Your task to perform on an android device: Open network settings Image 0: 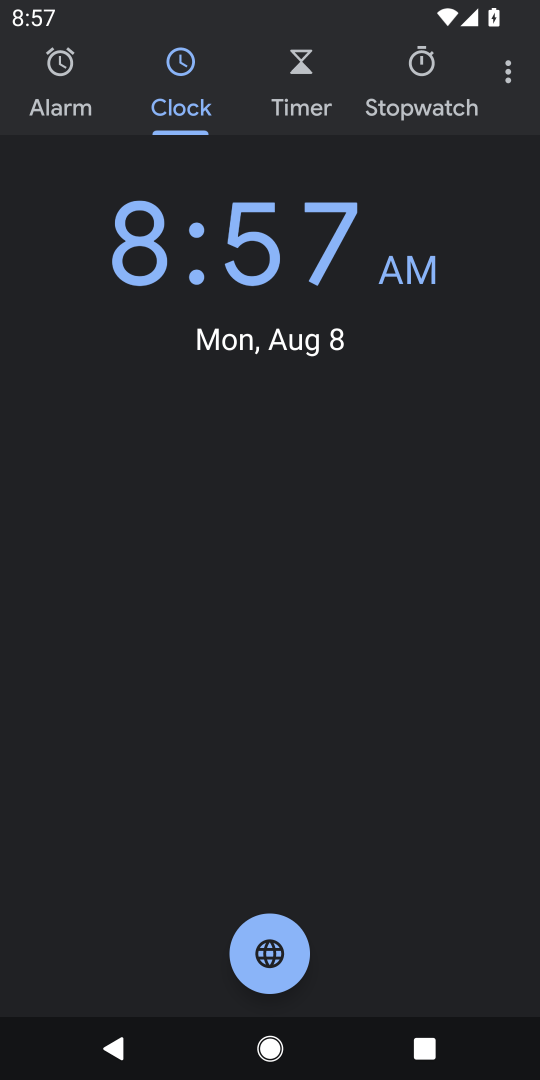
Step 0: press home button
Your task to perform on an android device: Open network settings Image 1: 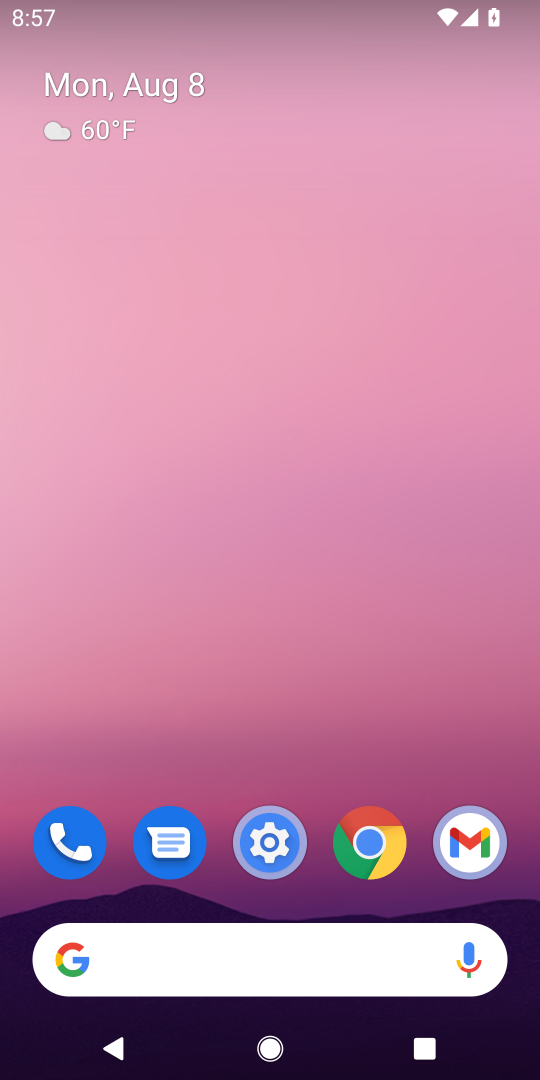
Step 1: click (261, 851)
Your task to perform on an android device: Open network settings Image 2: 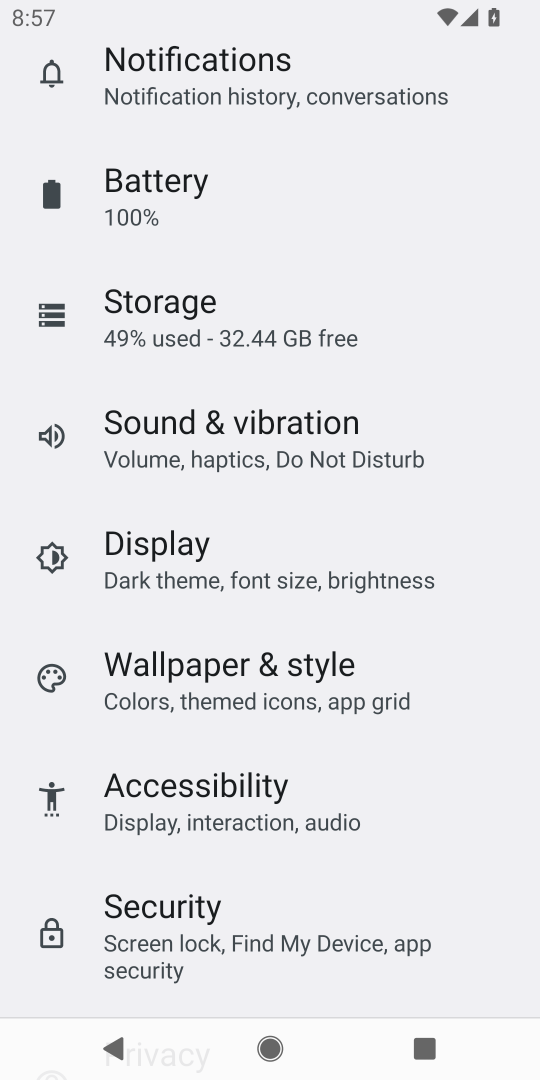
Step 2: drag from (298, 135) to (405, 783)
Your task to perform on an android device: Open network settings Image 3: 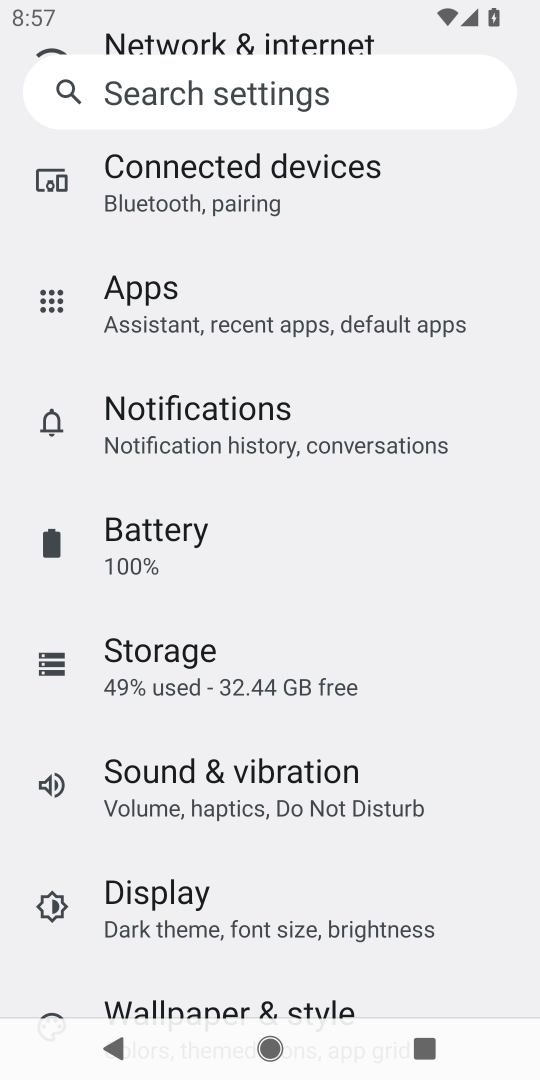
Step 3: drag from (303, 175) to (347, 589)
Your task to perform on an android device: Open network settings Image 4: 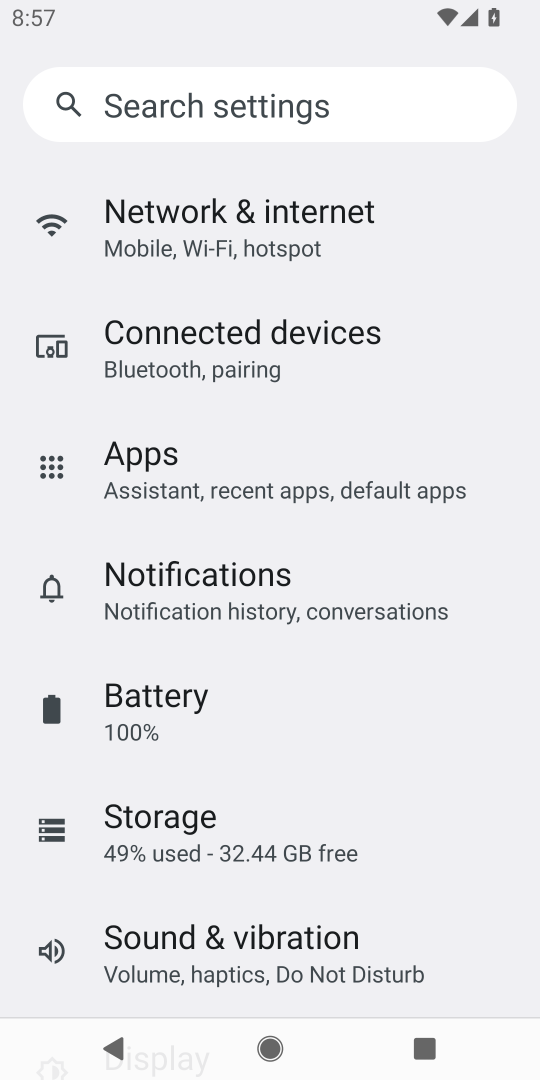
Step 4: click (242, 217)
Your task to perform on an android device: Open network settings Image 5: 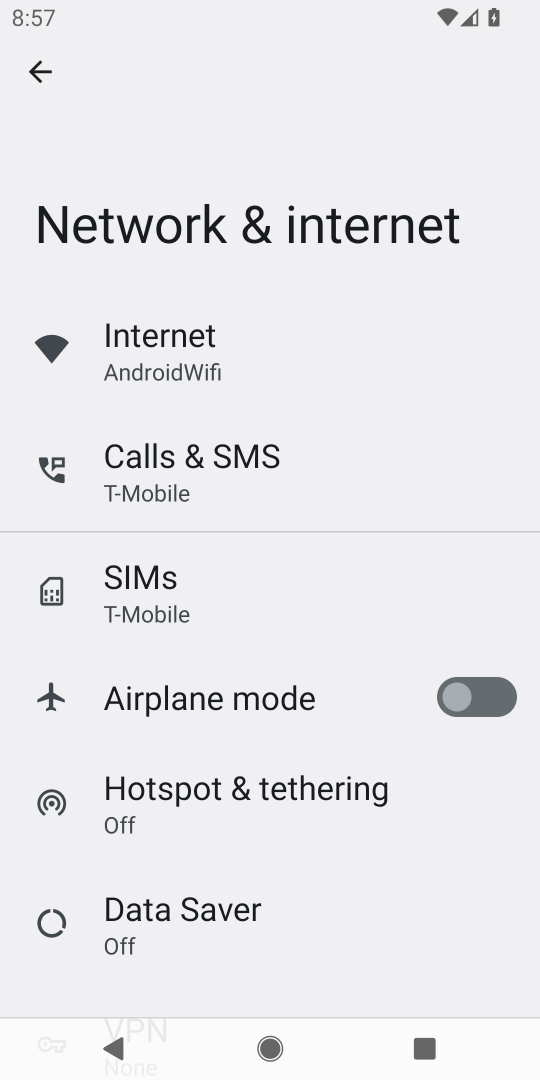
Step 5: task complete